Your task to perform on an android device: turn on location history Image 0: 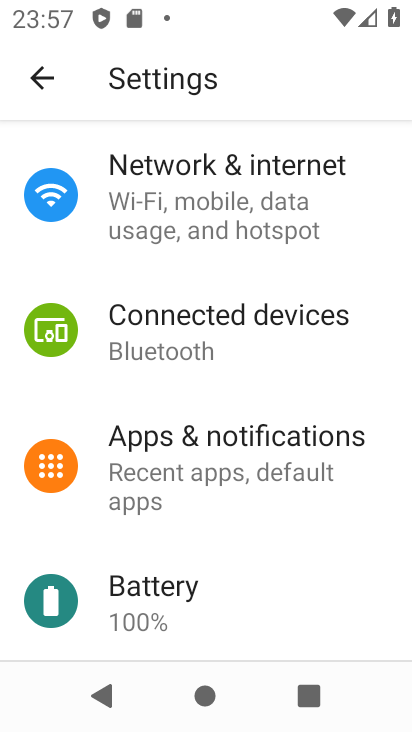
Step 0: drag from (267, 608) to (288, 138)
Your task to perform on an android device: turn on location history Image 1: 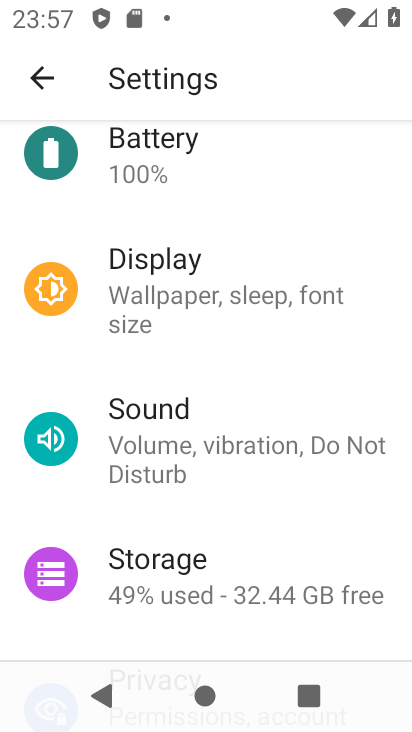
Step 1: drag from (316, 479) to (288, 113)
Your task to perform on an android device: turn on location history Image 2: 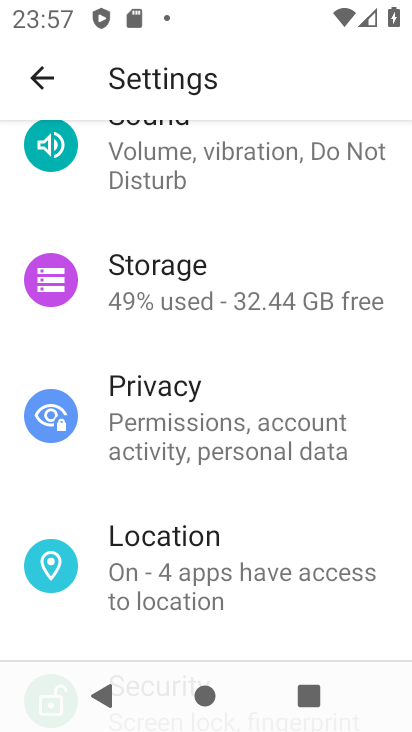
Step 2: click (234, 552)
Your task to perform on an android device: turn on location history Image 3: 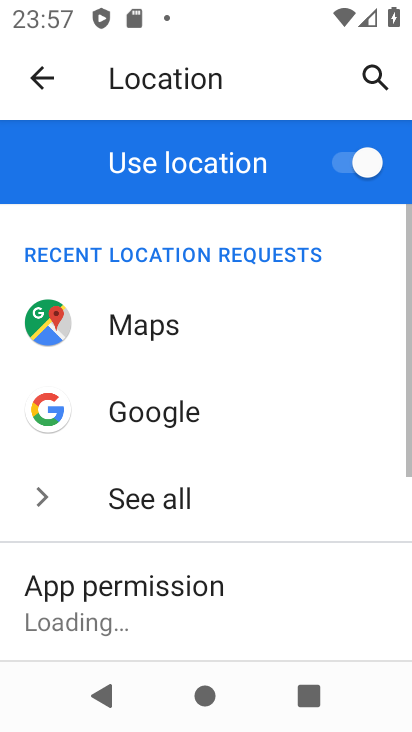
Step 3: drag from (234, 552) to (259, 105)
Your task to perform on an android device: turn on location history Image 4: 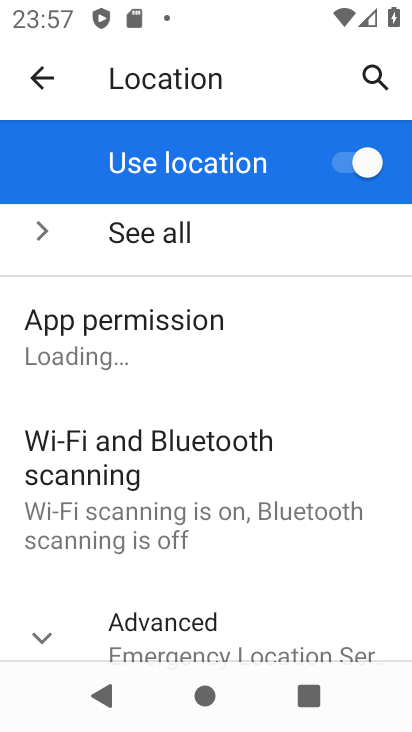
Step 4: drag from (292, 531) to (326, 144)
Your task to perform on an android device: turn on location history Image 5: 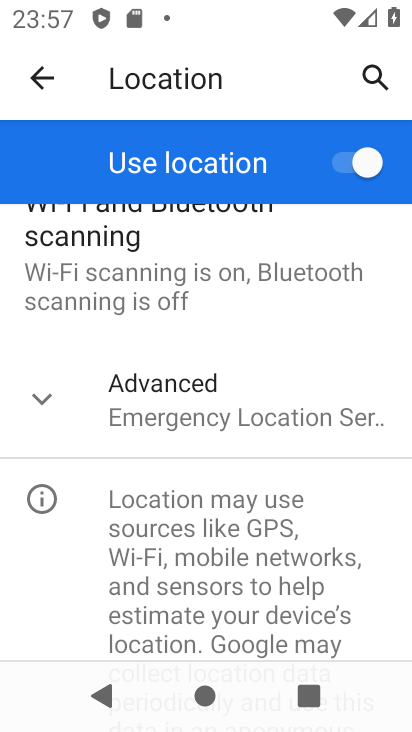
Step 5: click (249, 367)
Your task to perform on an android device: turn on location history Image 6: 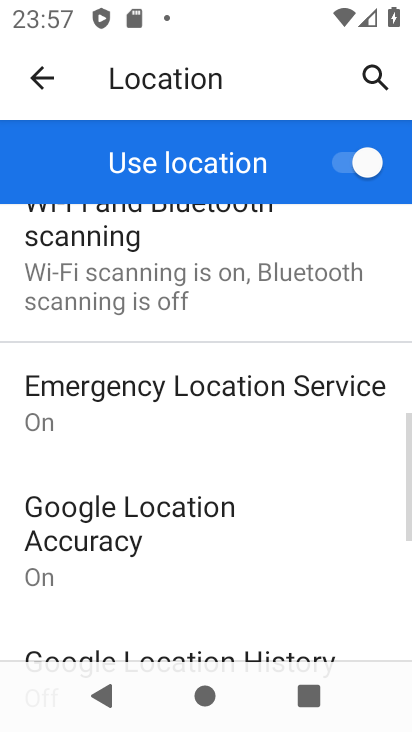
Step 6: drag from (243, 531) to (261, 206)
Your task to perform on an android device: turn on location history Image 7: 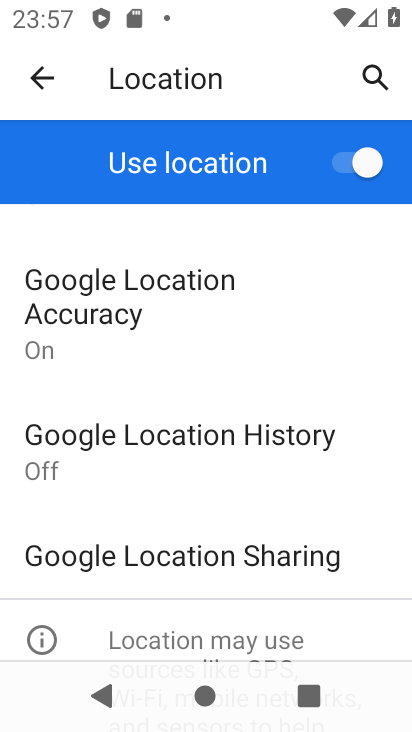
Step 7: click (227, 428)
Your task to perform on an android device: turn on location history Image 8: 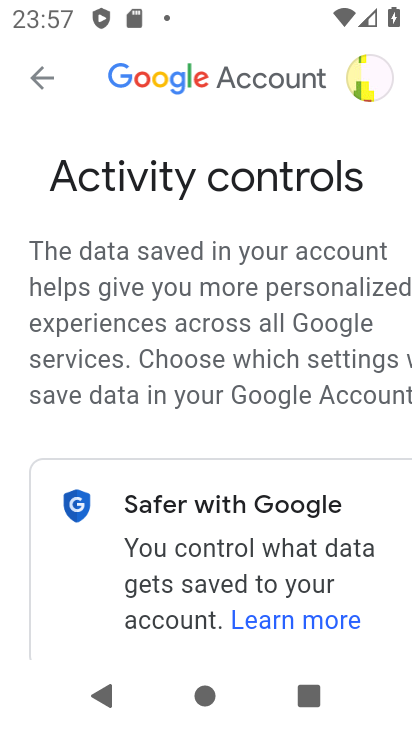
Step 8: task complete